Your task to perform on an android device: Open wifi settings Image 0: 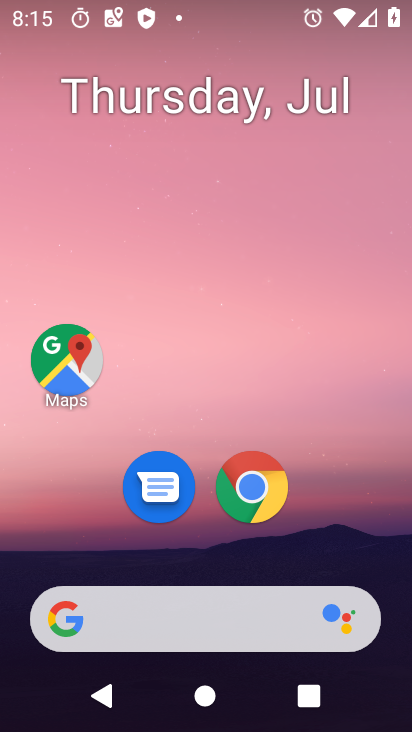
Step 0: drag from (248, 649) to (325, 179)
Your task to perform on an android device: Open wifi settings Image 1: 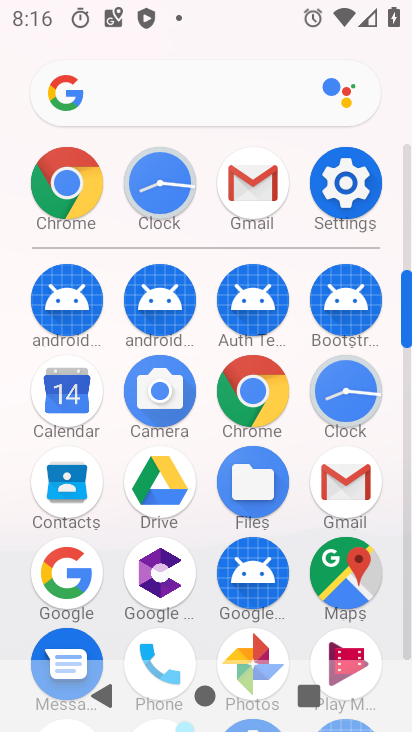
Step 1: click (348, 189)
Your task to perform on an android device: Open wifi settings Image 2: 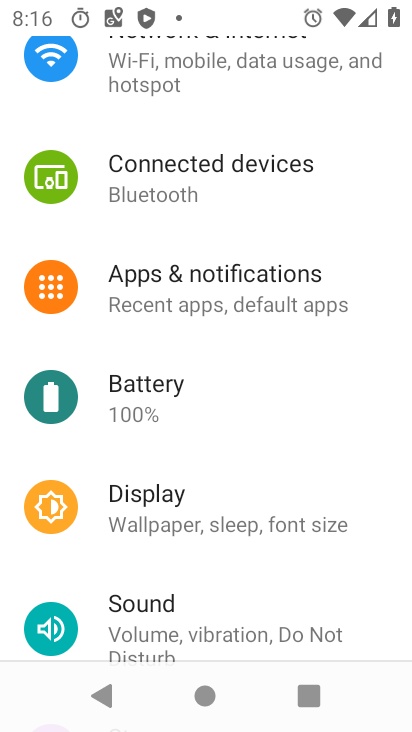
Step 2: drag from (184, 275) to (138, 601)
Your task to perform on an android device: Open wifi settings Image 3: 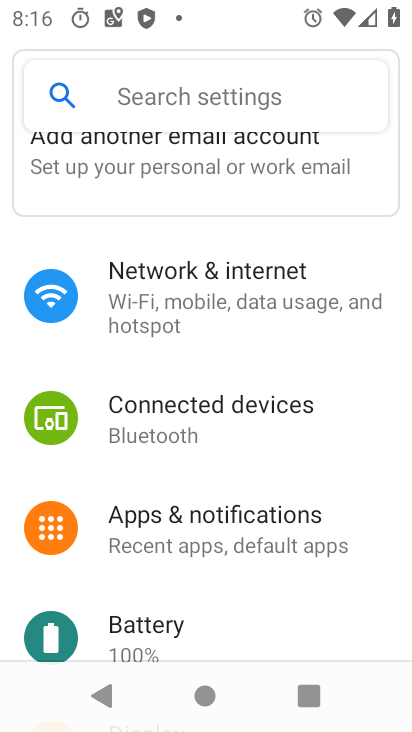
Step 3: click (203, 322)
Your task to perform on an android device: Open wifi settings Image 4: 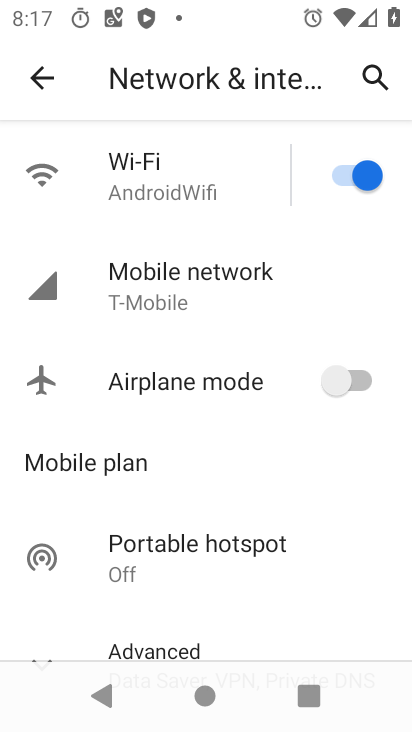
Step 4: click (203, 190)
Your task to perform on an android device: Open wifi settings Image 5: 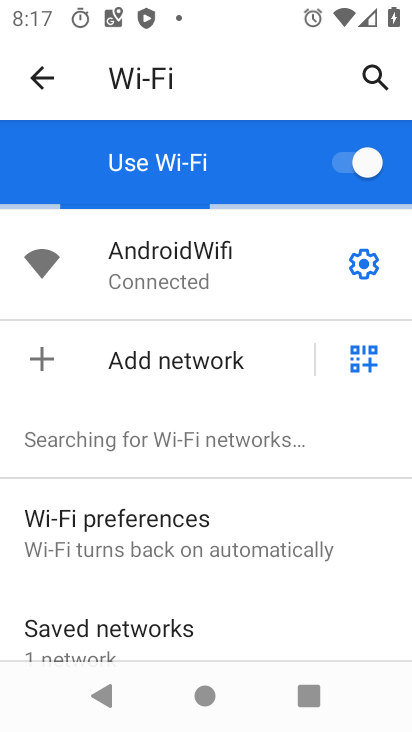
Step 5: task complete